Your task to perform on an android device: Do I have any events today? Image 0: 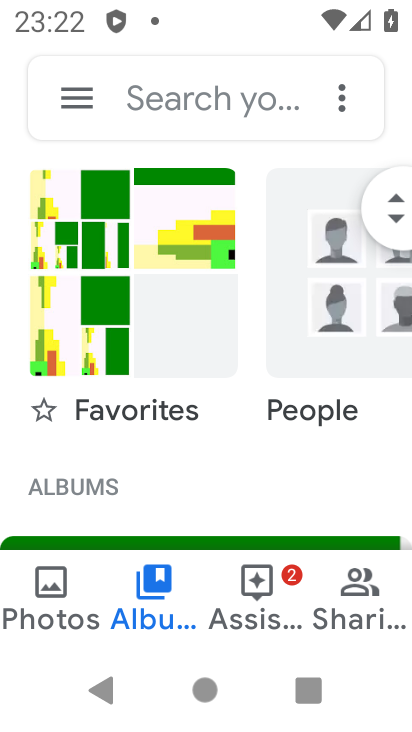
Step 0: press home button
Your task to perform on an android device: Do I have any events today? Image 1: 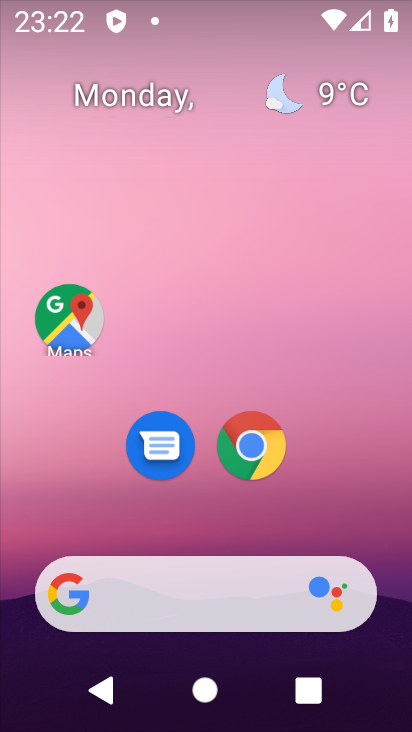
Step 1: drag from (234, 601) to (185, 48)
Your task to perform on an android device: Do I have any events today? Image 2: 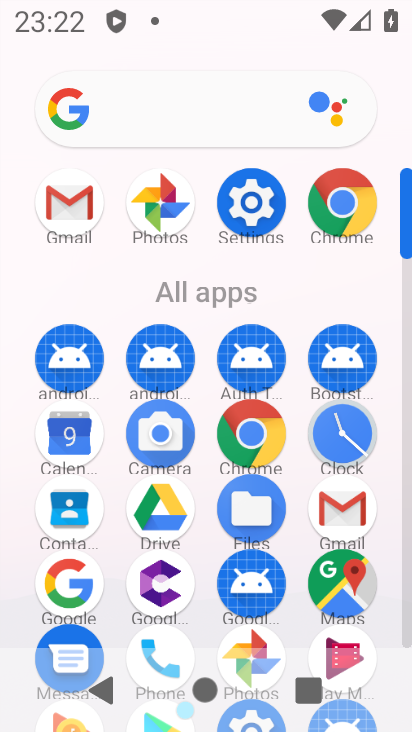
Step 2: click (64, 428)
Your task to perform on an android device: Do I have any events today? Image 3: 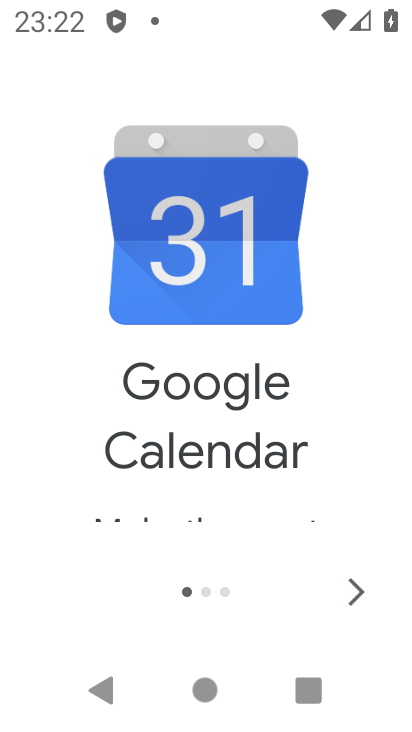
Step 3: click (343, 587)
Your task to perform on an android device: Do I have any events today? Image 4: 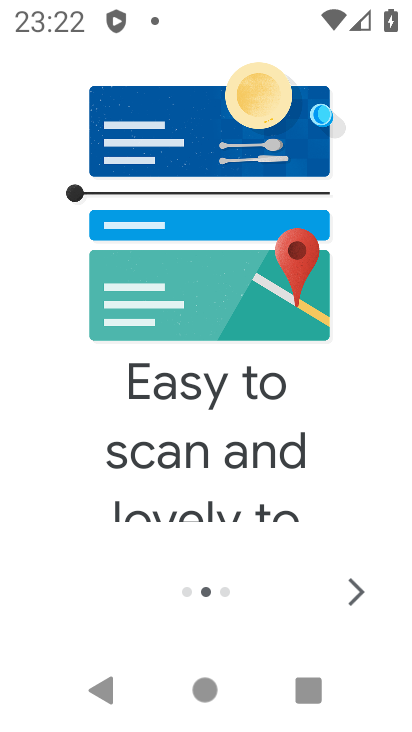
Step 4: click (343, 587)
Your task to perform on an android device: Do I have any events today? Image 5: 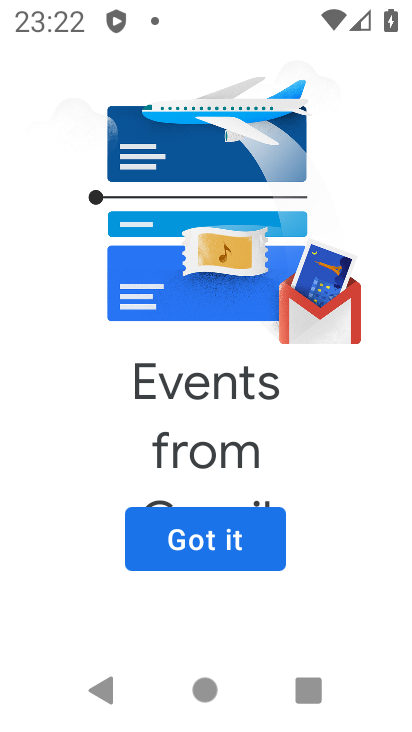
Step 5: click (343, 587)
Your task to perform on an android device: Do I have any events today? Image 6: 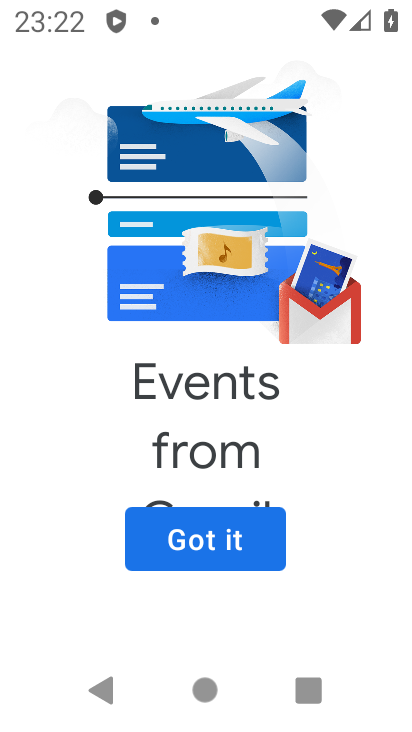
Step 6: click (251, 550)
Your task to perform on an android device: Do I have any events today? Image 7: 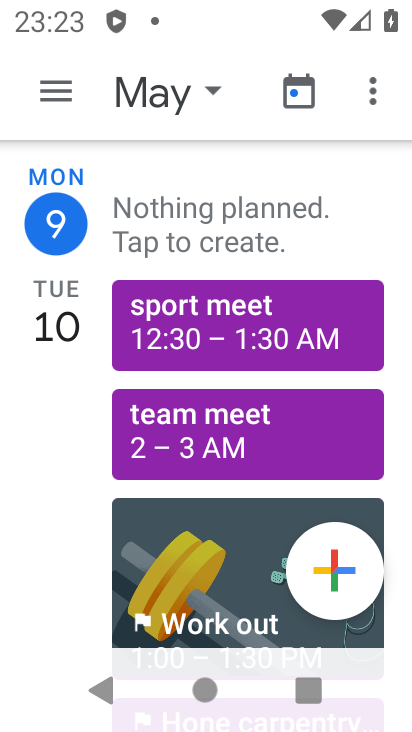
Step 7: click (206, 97)
Your task to perform on an android device: Do I have any events today? Image 8: 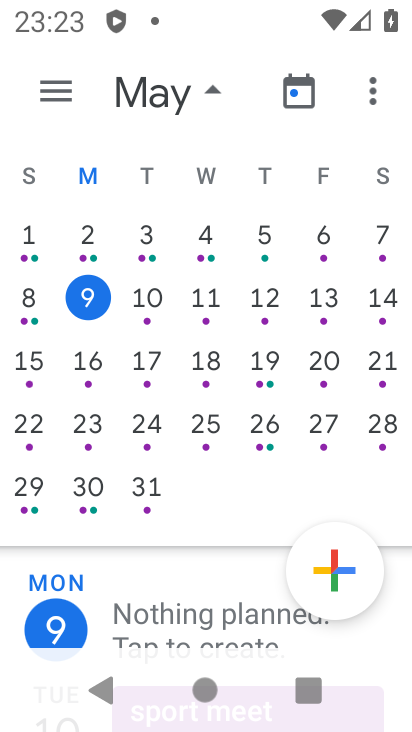
Step 8: task complete